Your task to perform on an android device: turn off picture-in-picture Image 0: 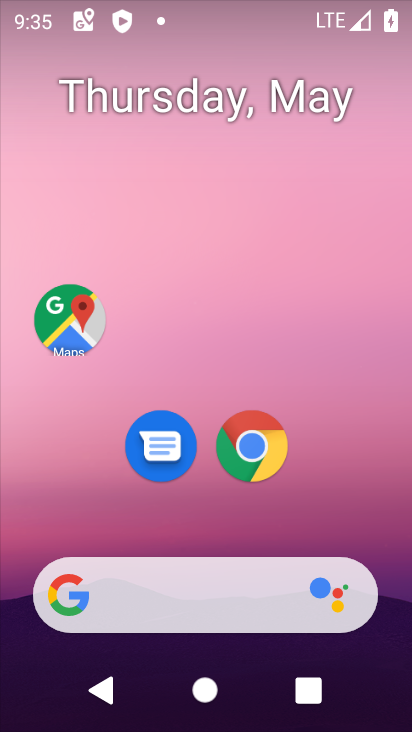
Step 0: drag from (394, 602) to (285, 94)
Your task to perform on an android device: turn off picture-in-picture Image 1: 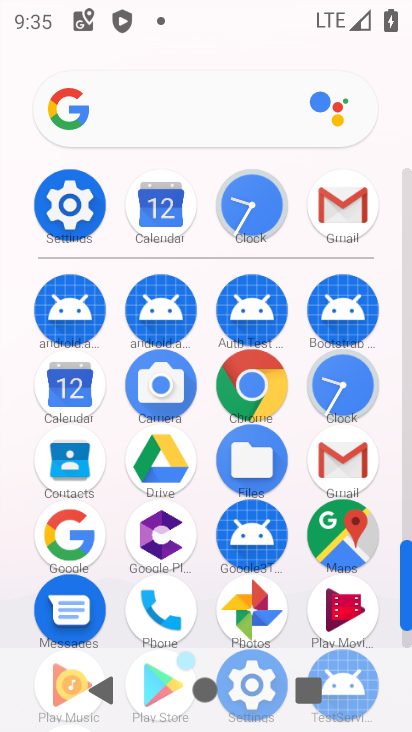
Step 1: click (405, 642)
Your task to perform on an android device: turn off picture-in-picture Image 2: 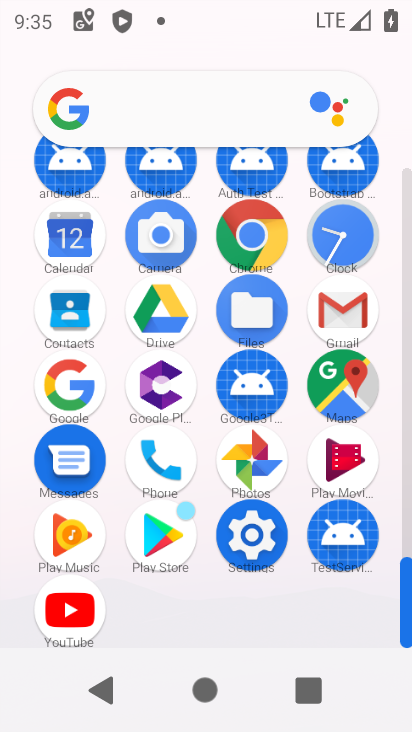
Step 2: click (253, 533)
Your task to perform on an android device: turn off picture-in-picture Image 3: 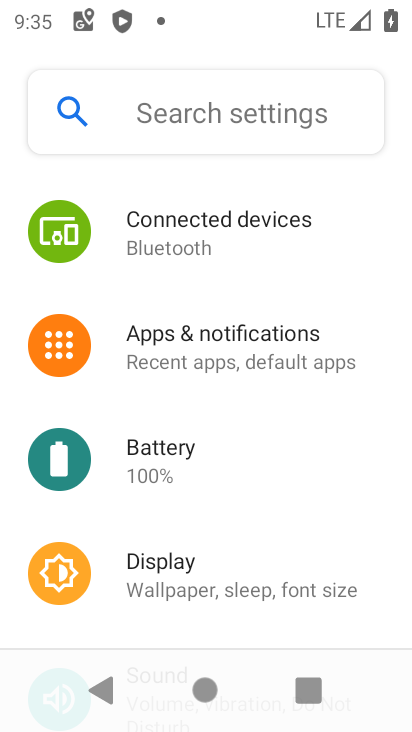
Step 3: click (191, 335)
Your task to perform on an android device: turn off picture-in-picture Image 4: 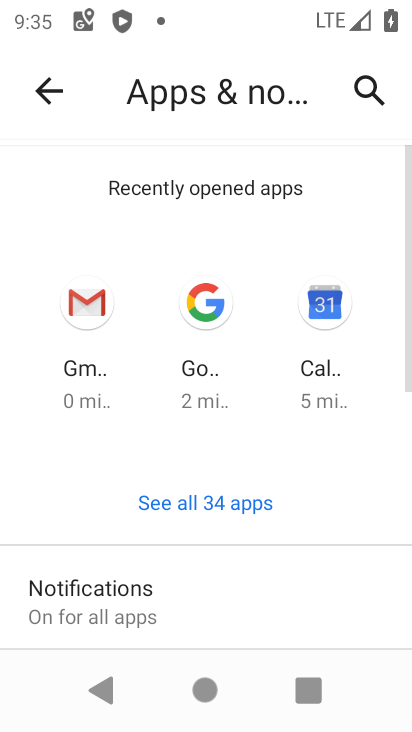
Step 4: drag from (250, 601) to (271, 125)
Your task to perform on an android device: turn off picture-in-picture Image 5: 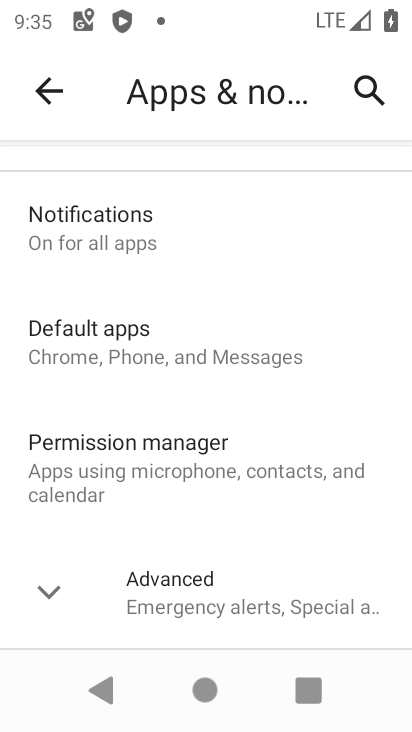
Step 5: click (46, 592)
Your task to perform on an android device: turn off picture-in-picture Image 6: 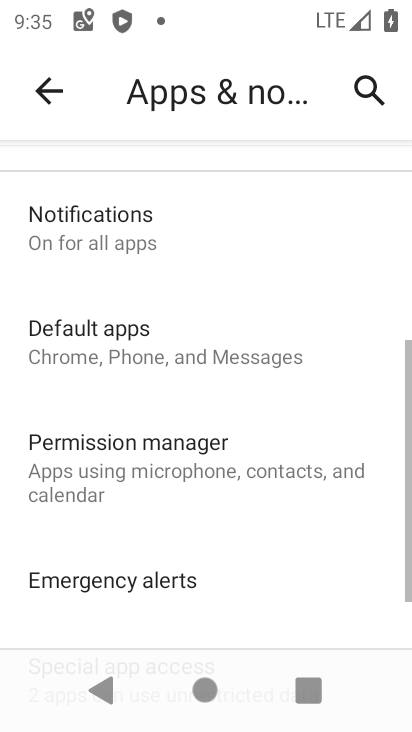
Step 6: drag from (253, 630) to (304, 234)
Your task to perform on an android device: turn off picture-in-picture Image 7: 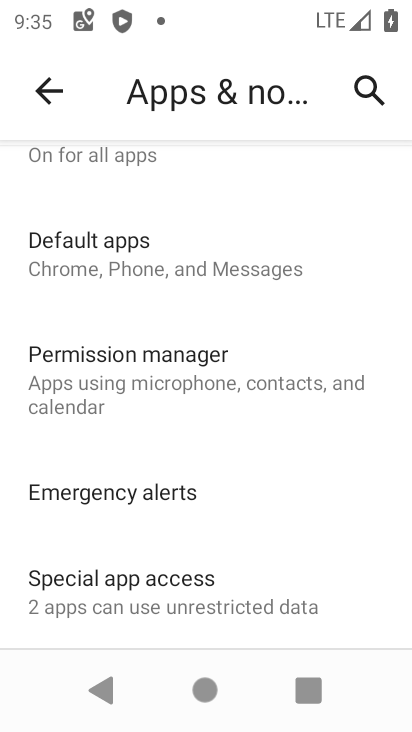
Step 7: click (96, 591)
Your task to perform on an android device: turn off picture-in-picture Image 8: 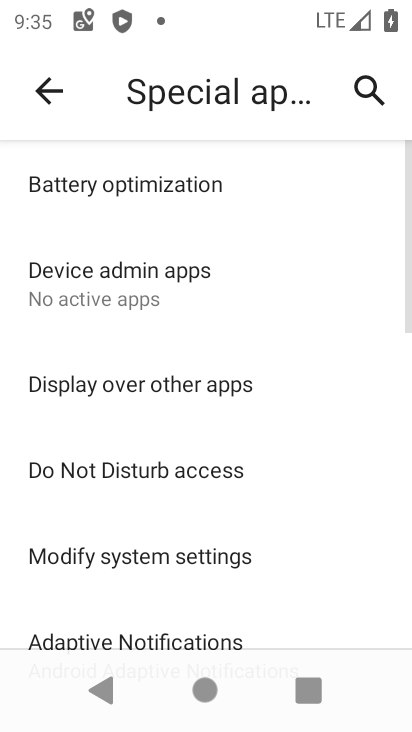
Step 8: drag from (353, 634) to (285, 212)
Your task to perform on an android device: turn off picture-in-picture Image 9: 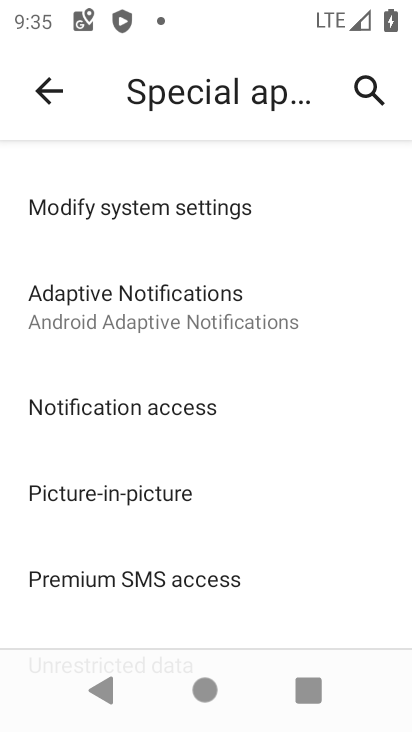
Step 9: click (90, 495)
Your task to perform on an android device: turn off picture-in-picture Image 10: 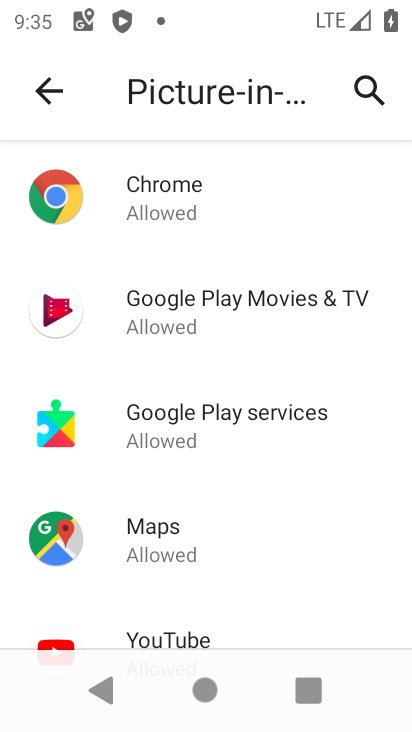
Step 10: drag from (285, 622) to (276, 149)
Your task to perform on an android device: turn off picture-in-picture Image 11: 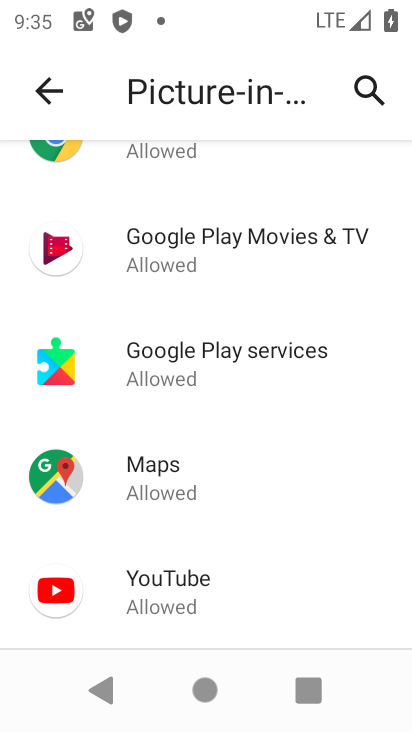
Step 11: click (155, 581)
Your task to perform on an android device: turn off picture-in-picture Image 12: 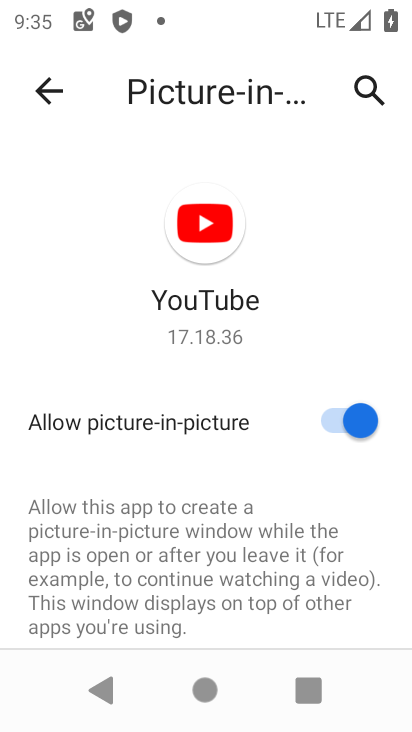
Step 12: click (331, 416)
Your task to perform on an android device: turn off picture-in-picture Image 13: 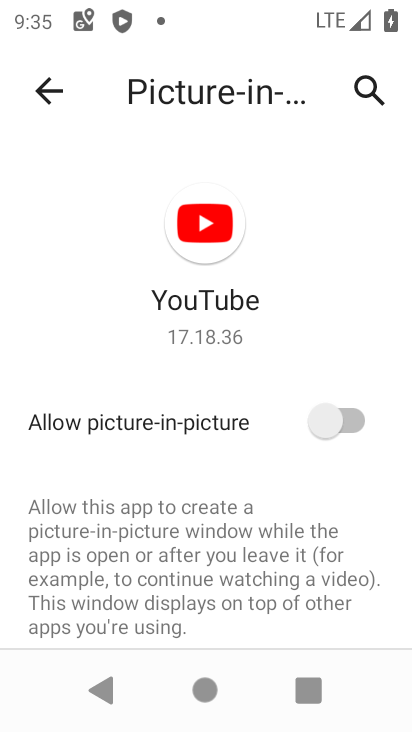
Step 13: task complete